Your task to perform on an android device: Open the map Image 0: 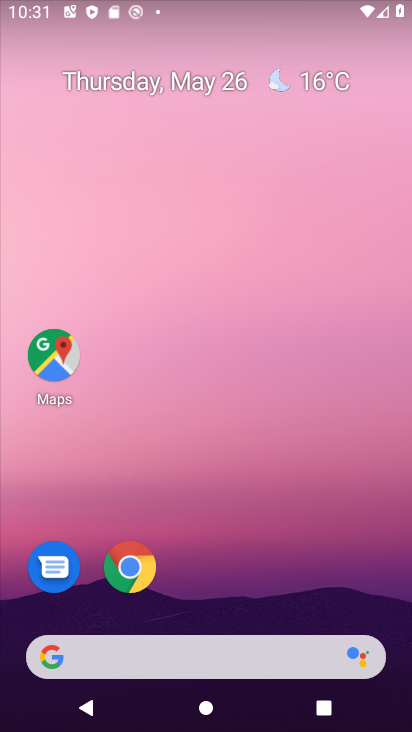
Step 0: press home button
Your task to perform on an android device: Open the map Image 1: 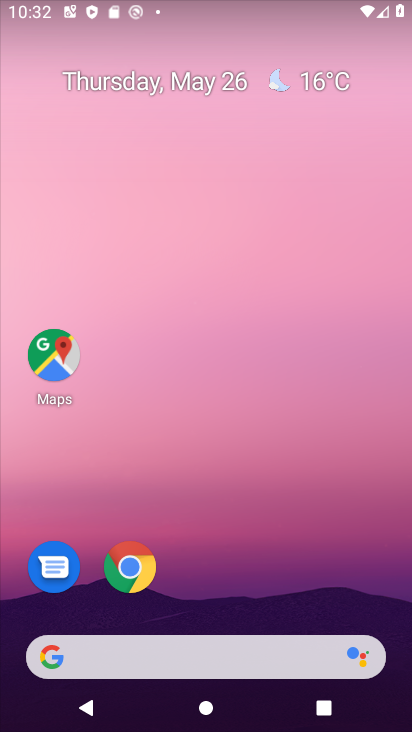
Step 1: click (50, 355)
Your task to perform on an android device: Open the map Image 2: 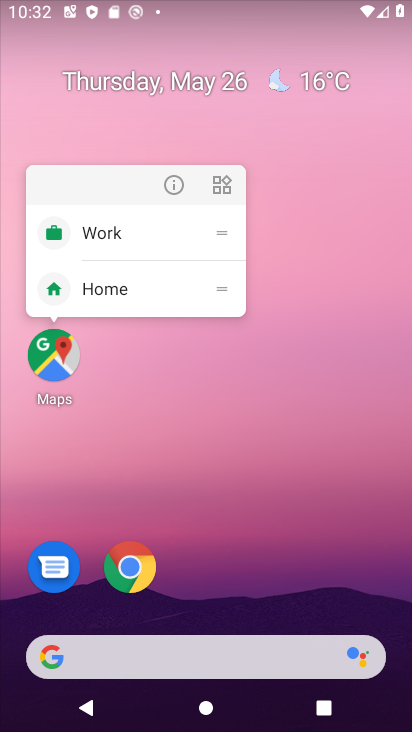
Step 2: click (53, 351)
Your task to perform on an android device: Open the map Image 3: 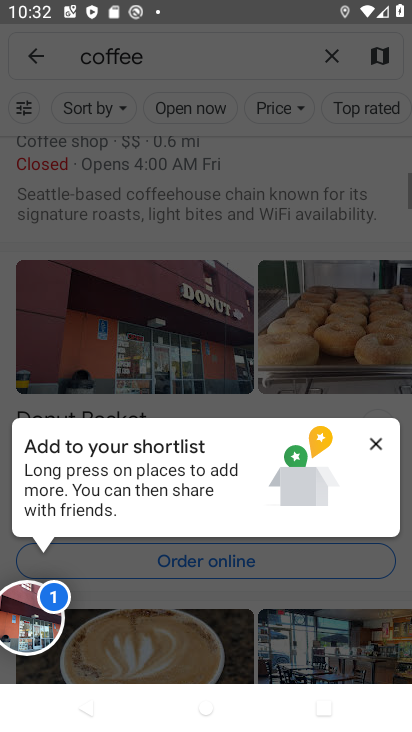
Step 3: click (372, 440)
Your task to perform on an android device: Open the map Image 4: 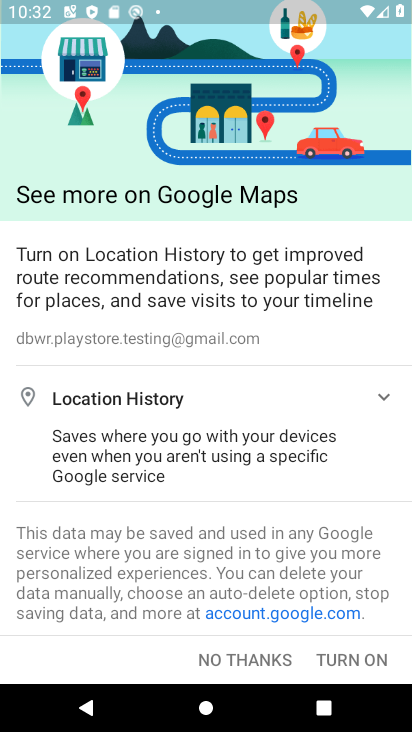
Step 4: drag from (267, 385) to (282, 250)
Your task to perform on an android device: Open the map Image 5: 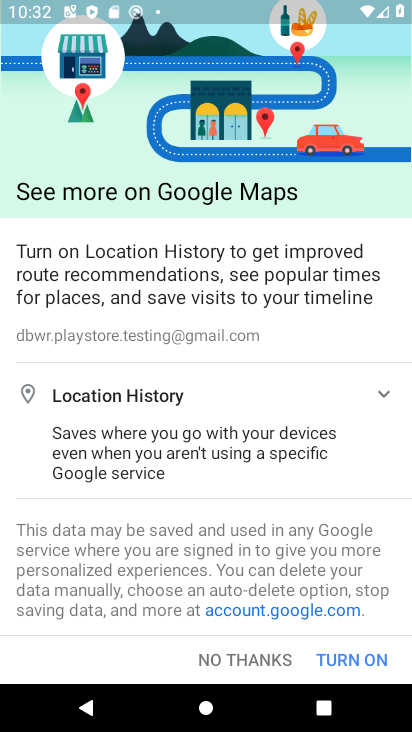
Step 5: drag from (260, 551) to (278, 220)
Your task to perform on an android device: Open the map Image 6: 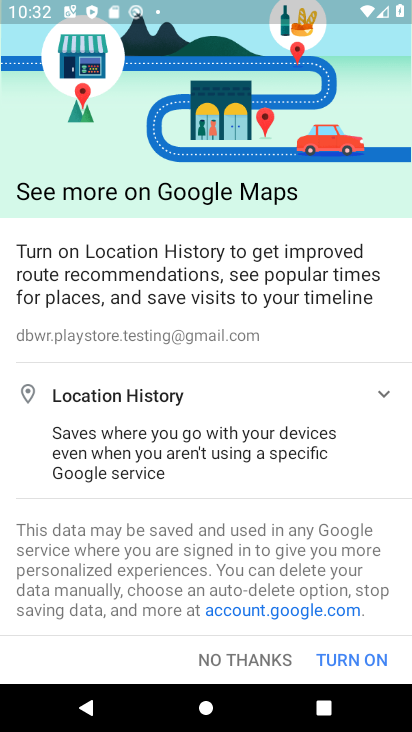
Step 6: drag from (301, 169) to (301, 124)
Your task to perform on an android device: Open the map Image 7: 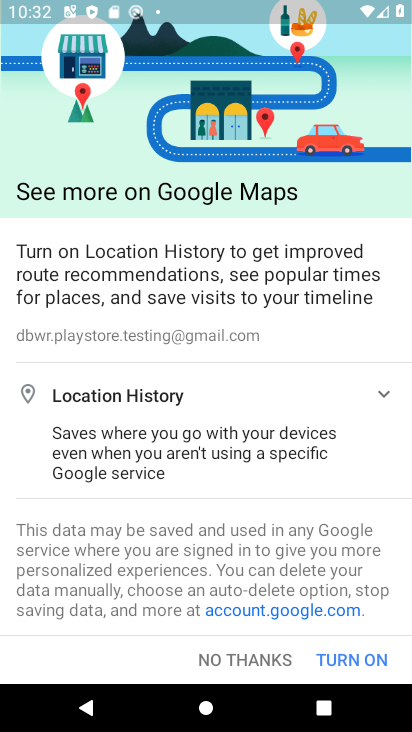
Step 7: click (352, 656)
Your task to perform on an android device: Open the map Image 8: 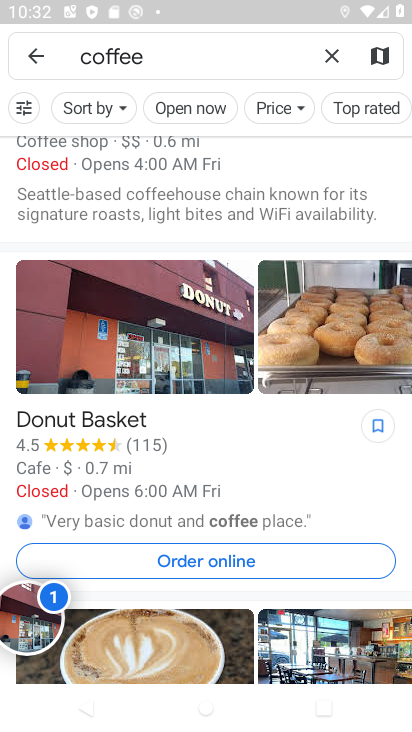
Step 8: click (335, 57)
Your task to perform on an android device: Open the map Image 9: 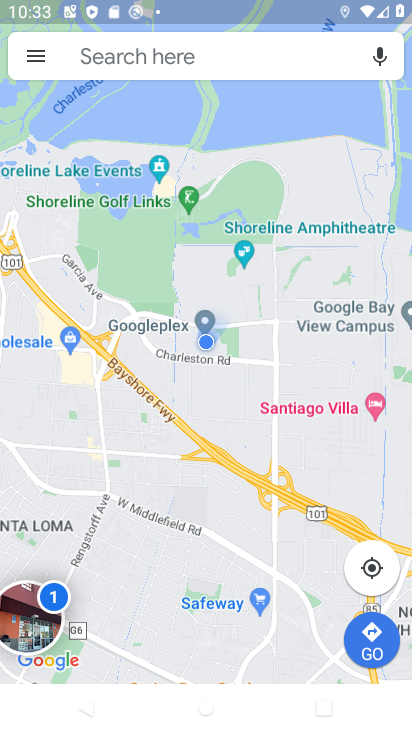
Step 9: task complete